Your task to perform on an android device: Open accessibility settings Image 0: 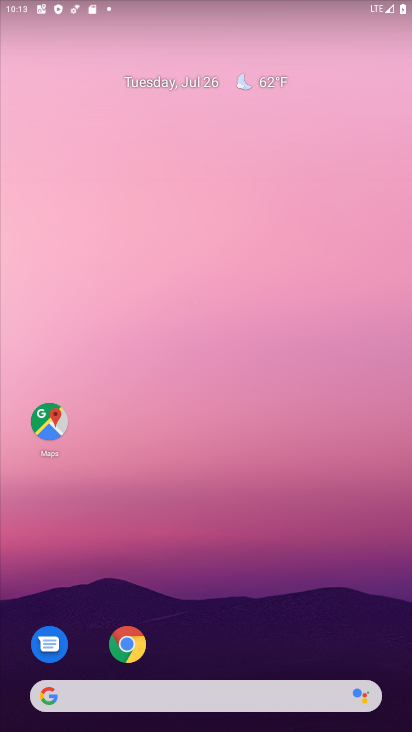
Step 0: drag from (248, 614) to (275, 0)
Your task to perform on an android device: Open accessibility settings Image 1: 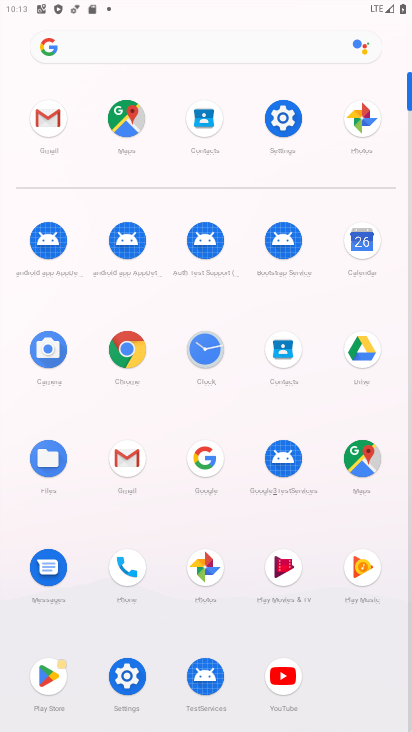
Step 1: click (285, 121)
Your task to perform on an android device: Open accessibility settings Image 2: 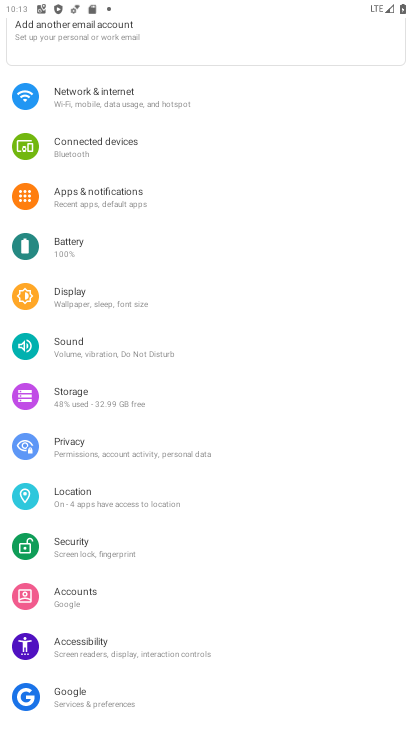
Step 2: click (102, 637)
Your task to perform on an android device: Open accessibility settings Image 3: 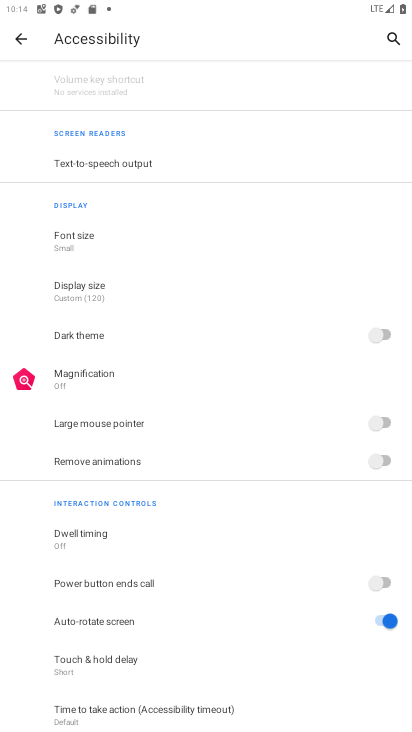
Step 3: task complete